Your task to perform on an android device: Open settings Image 0: 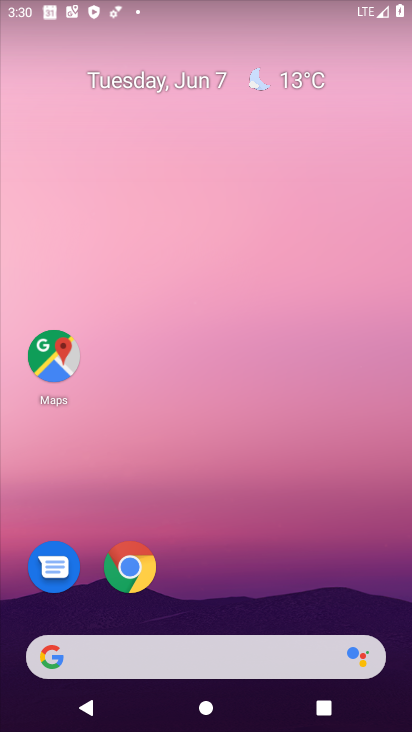
Step 0: drag from (231, 503) to (277, 10)
Your task to perform on an android device: Open settings Image 1: 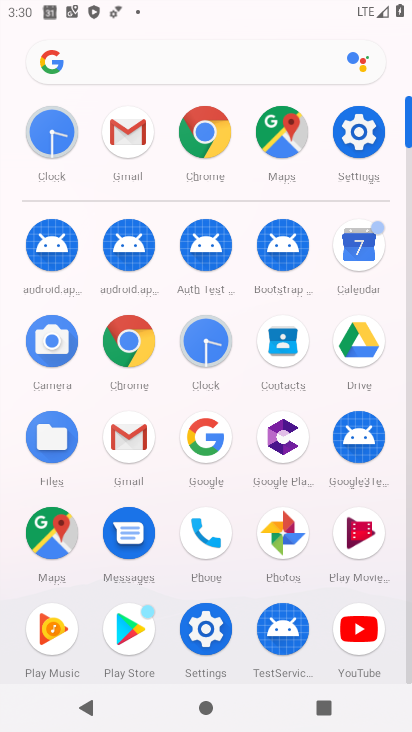
Step 1: click (355, 137)
Your task to perform on an android device: Open settings Image 2: 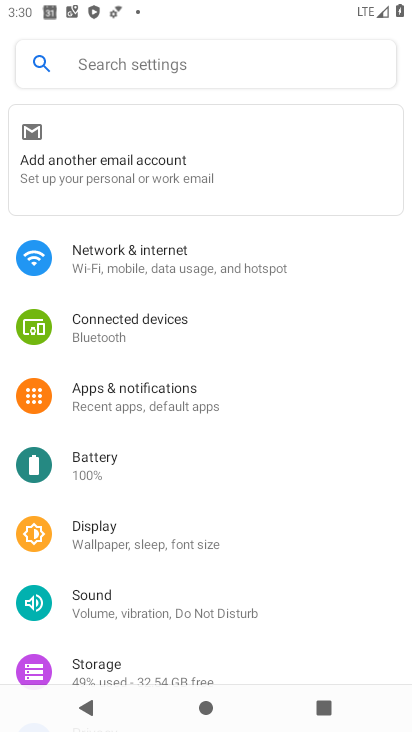
Step 2: task complete